Your task to perform on an android device: turn off airplane mode Image 0: 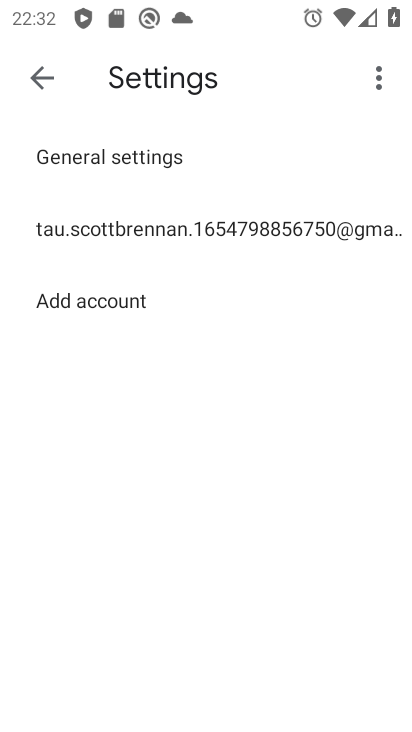
Step 0: press home button
Your task to perform on an android device: turn off airplane mode Image 1: 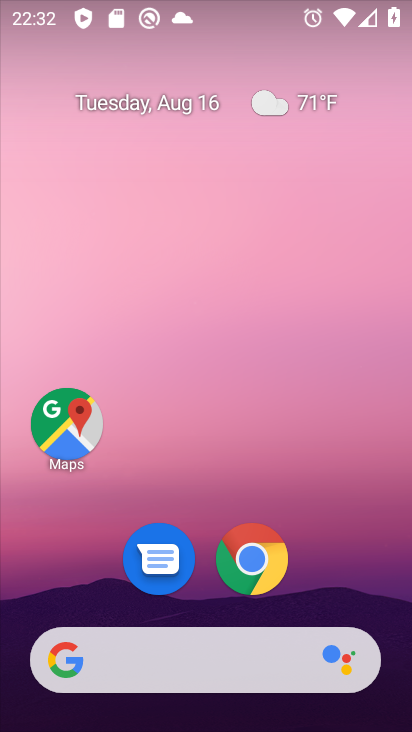
Step 1: drag from (180, 671) to (299, 66)
Your task to perform on an android device: turn off airplane mode Image 2: 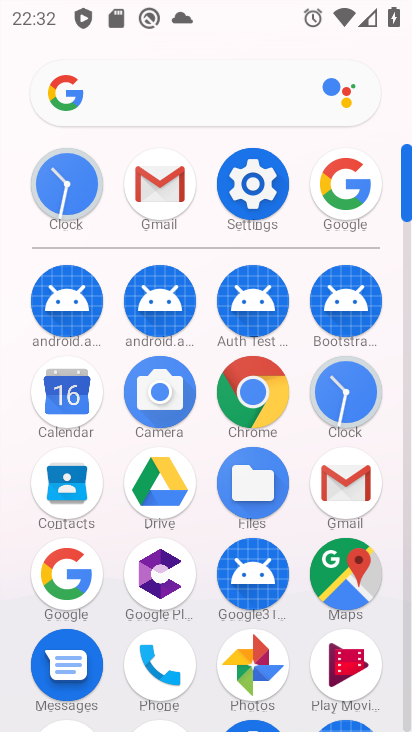
Step 2: click (252, 183)
Your task to perform on an android device: turn off airplane mode Image 3: 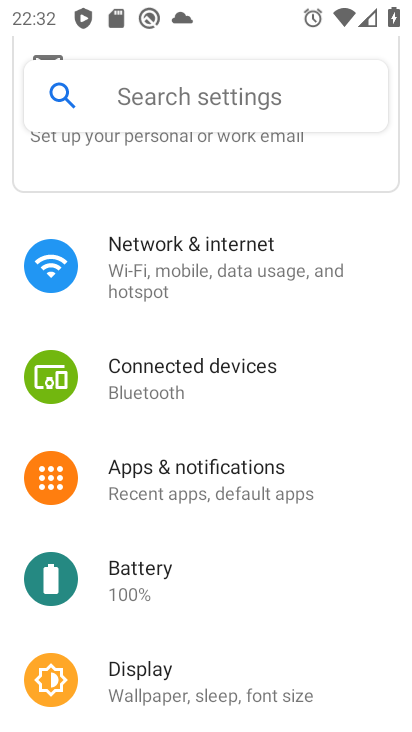
Step 3: click (255, 281)
Your task to perform on an android device: turn off airplane mode Image 4: 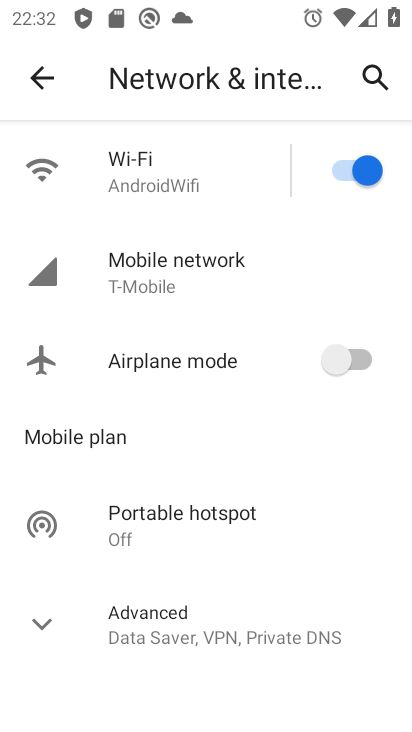
Step 4: task complete